Your task to perform on an android device: What's the weather going to be this weekend? Image 0: 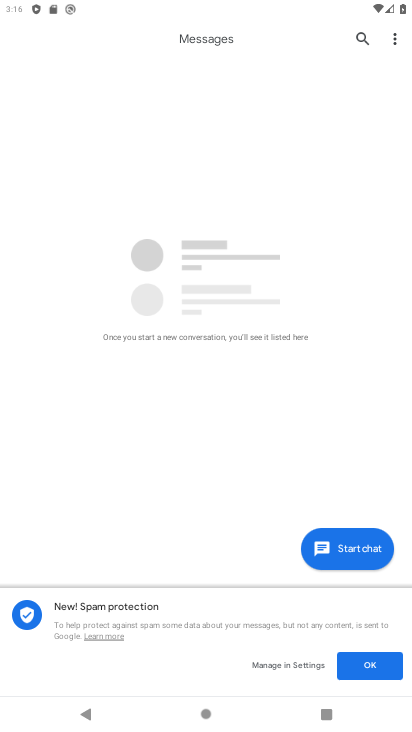
Step 0: click (347, 656)
Your task to perform on an android device: What's the weather going to be this weekend? Image 1: 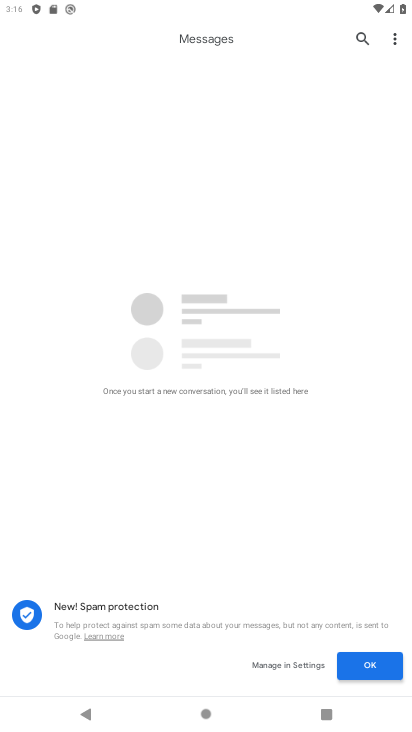
Step 1: press home button
Your task to perform on an android device: What's the weather going to be this weekend? Image 2: 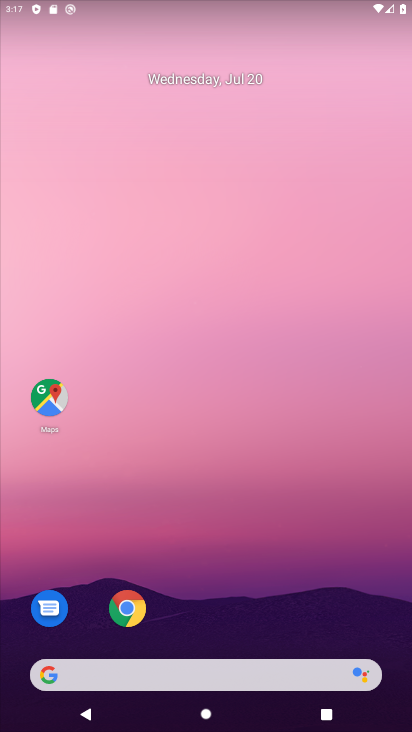
Step 2: drag from (230, 622) to (173, 174)
Your task to perform on an android device: What's the weather going to be this weekend? Image 3: 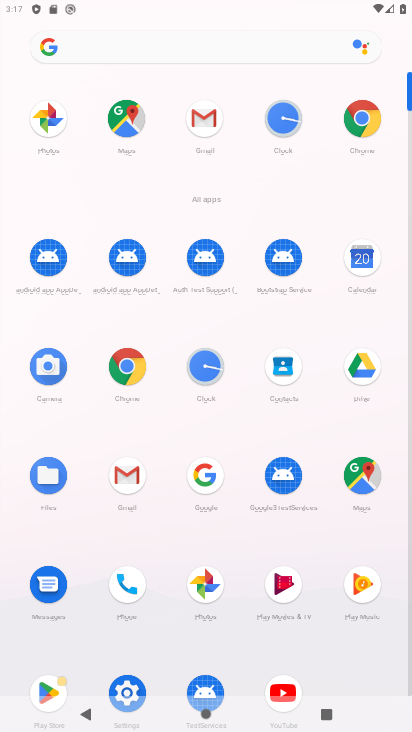
Step 3: click (145, 57)
Your task to perform on an android device: What's the weather going to be this weekend? Image 4: 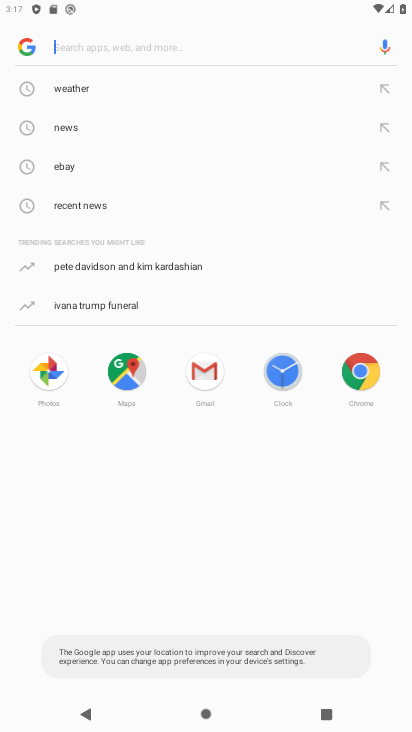
Step 4: click (119, 82)
Your task to perform on an android device: What's the weather going to be this weekend? Image 5: 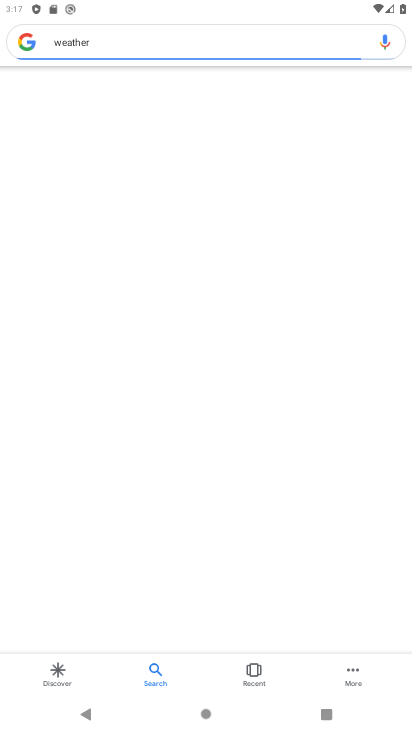
Step 5: task complete